Your task to perform on an android device: turn off wifi Image 0: 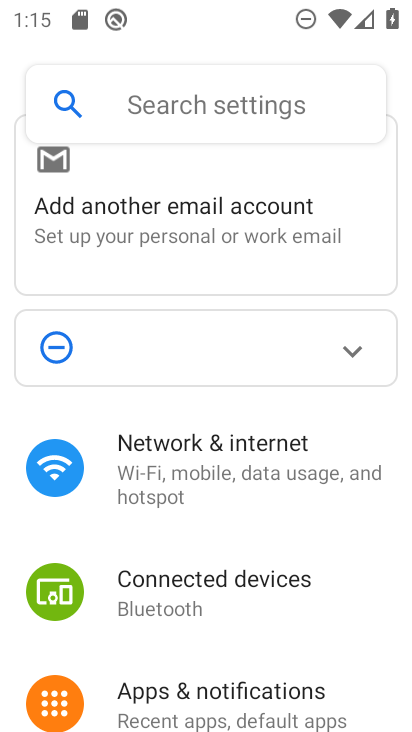
Step 0: click (199, 501)
Your task to perform on an android device: turn off wifi Image 1: 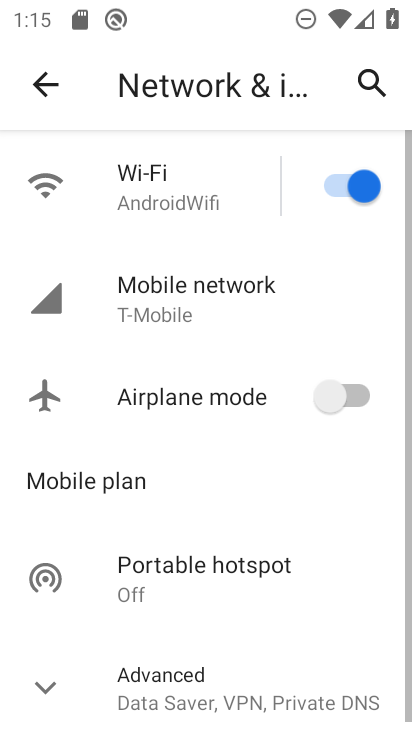
Step 1: click (348, 187)
Your task to perform on an android device: turn off wifi Image 2: 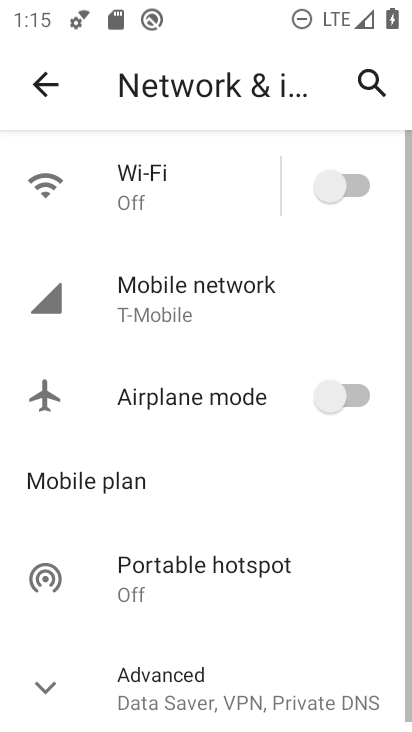
Step 2: task complete